Your task to perform on an android device: clear history in the chrome app Image 0: 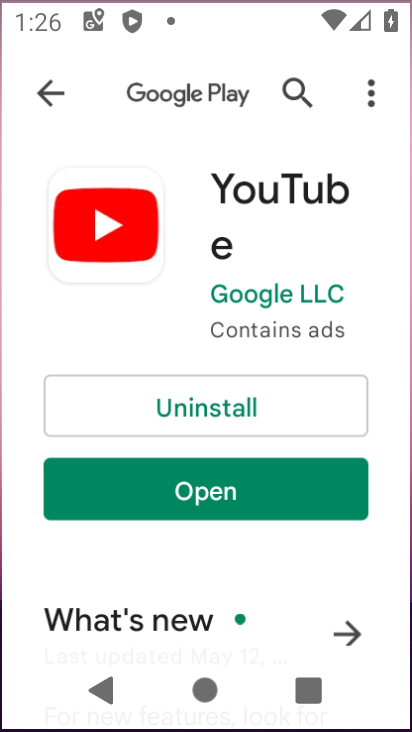
Step 0: drag from (364, 372) to (396, 22)
Your task to perform on an android device: clear history in the chrome app Image 1: 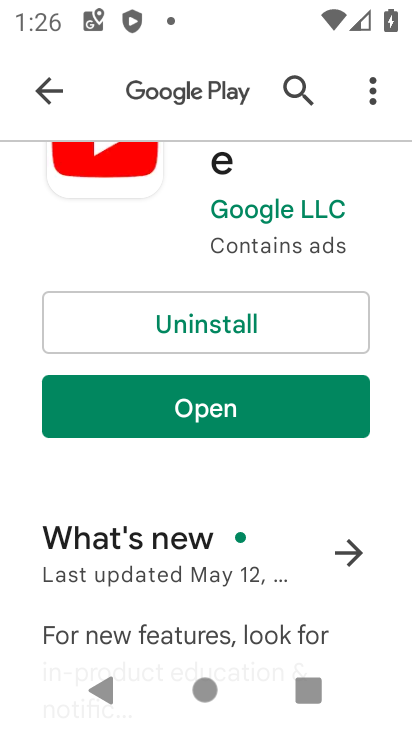
Step 1: press home button
Your task to perform on an android device: clear history in the chrome app Image 2: 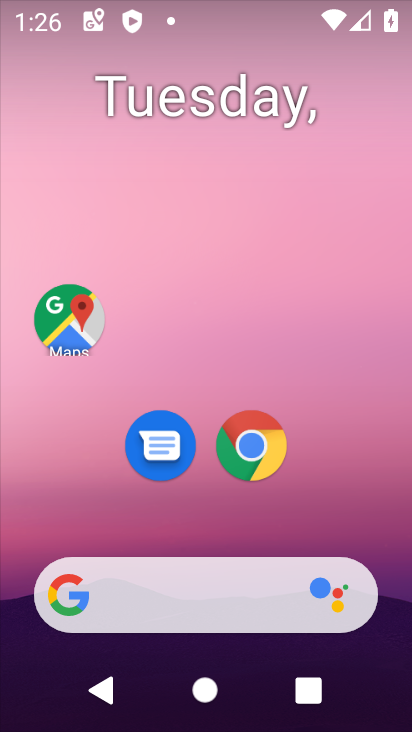
Step 2: click (258, 424)
Your task to perform on an android device: clear history in the chrome app Image 3: 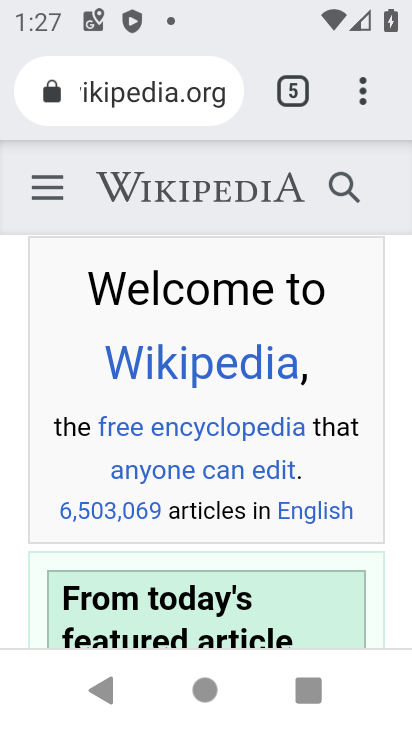
Step 3: task complete